Your task to perform on an android device: What's the weather going to be tomorrow? Image 0: 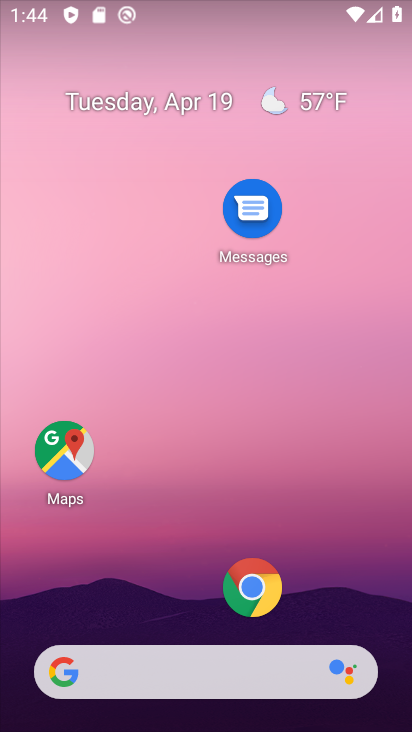
Step 0: click (311, 108)
Your task to perform on an android device: What's the weather going to be tomorrow? Image 1: 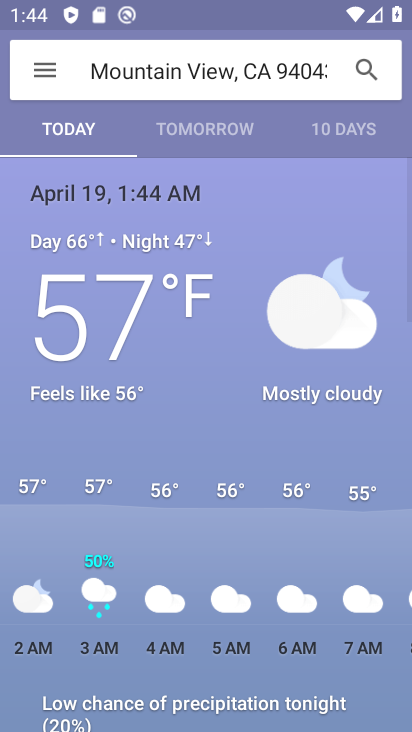
Step 1: click (193, 136)
Your task to perform on an android device: What's the weather going to be tomorrow? Image 2: 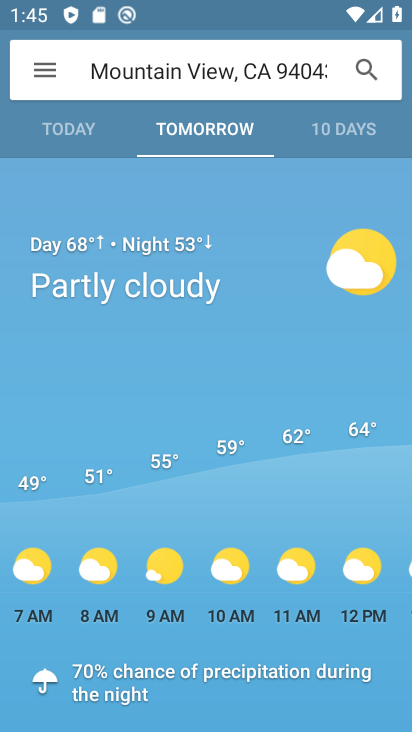
Step 2: task complete